Your task to perform on an android device: What's on the menu at Denny's? Image 0: 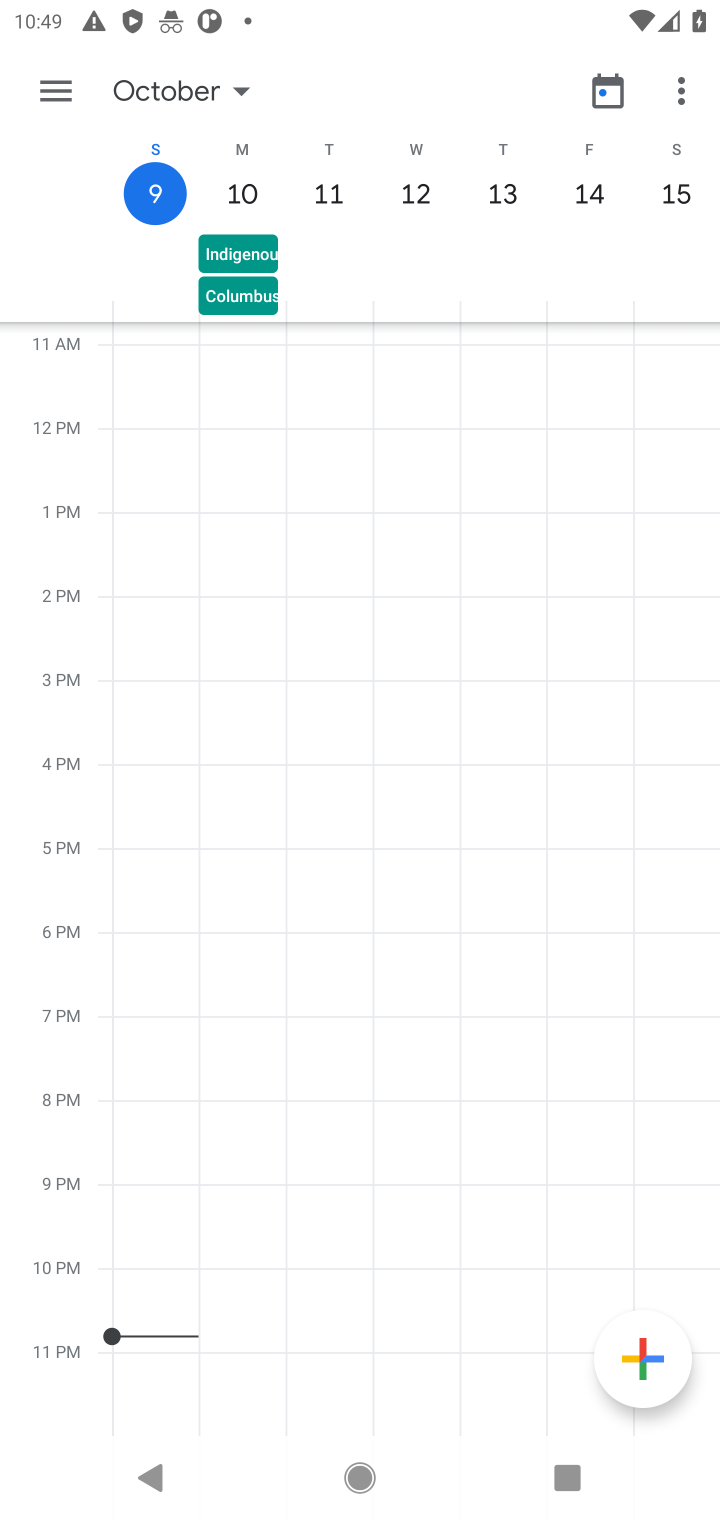
Step 0: press home button
Your task to perform on an android device: What's on the menu at Denny's? Image 1: 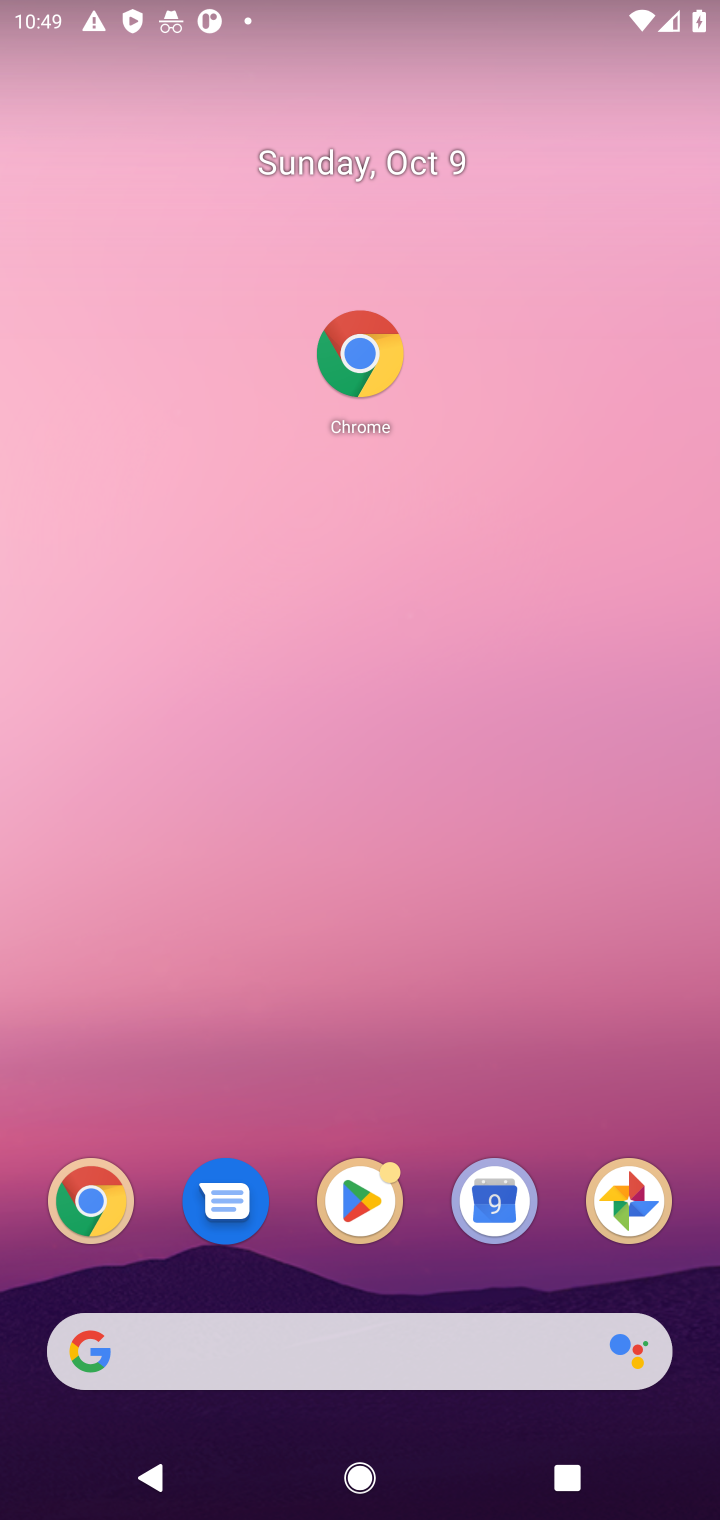
Step 1: click (96, 1204)
Your task to perform on an android device: What's on the menu at Denny's? Image 2: 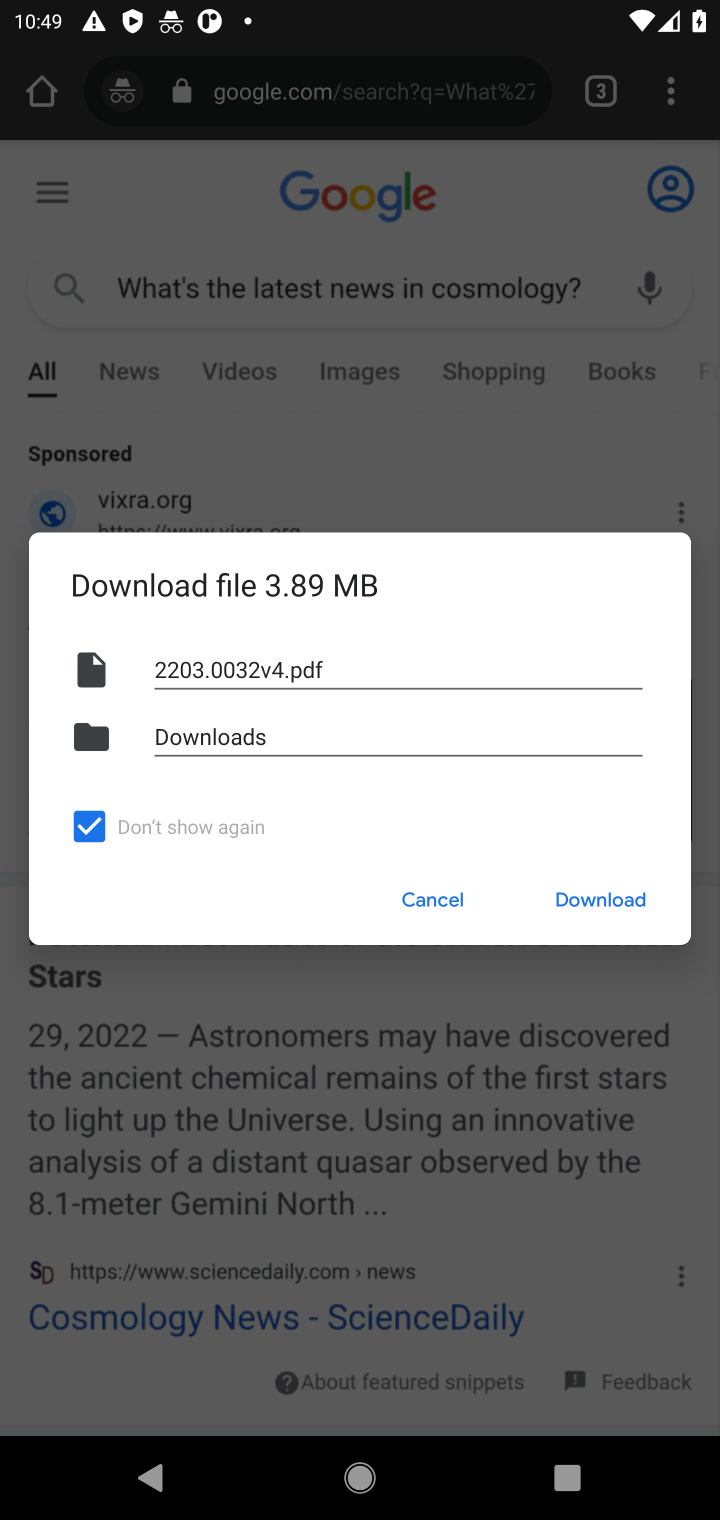
Step 2: click (438, 900)
Your task to perform on an android device: What's on the menu at Denny's? Image 3: 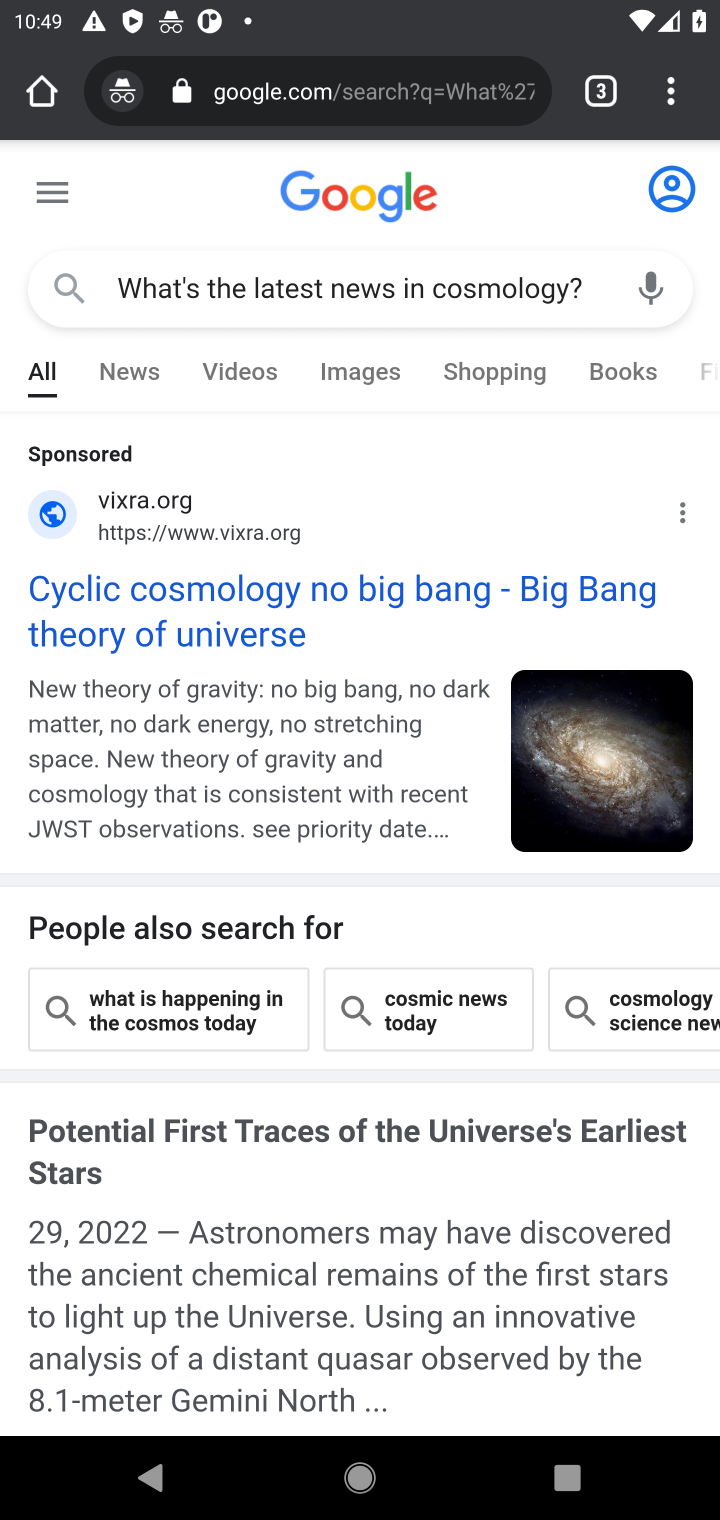
Step 3: click (310, 95)
Your task to perform on an android device: What's on the menu at Denny's? Image 4: 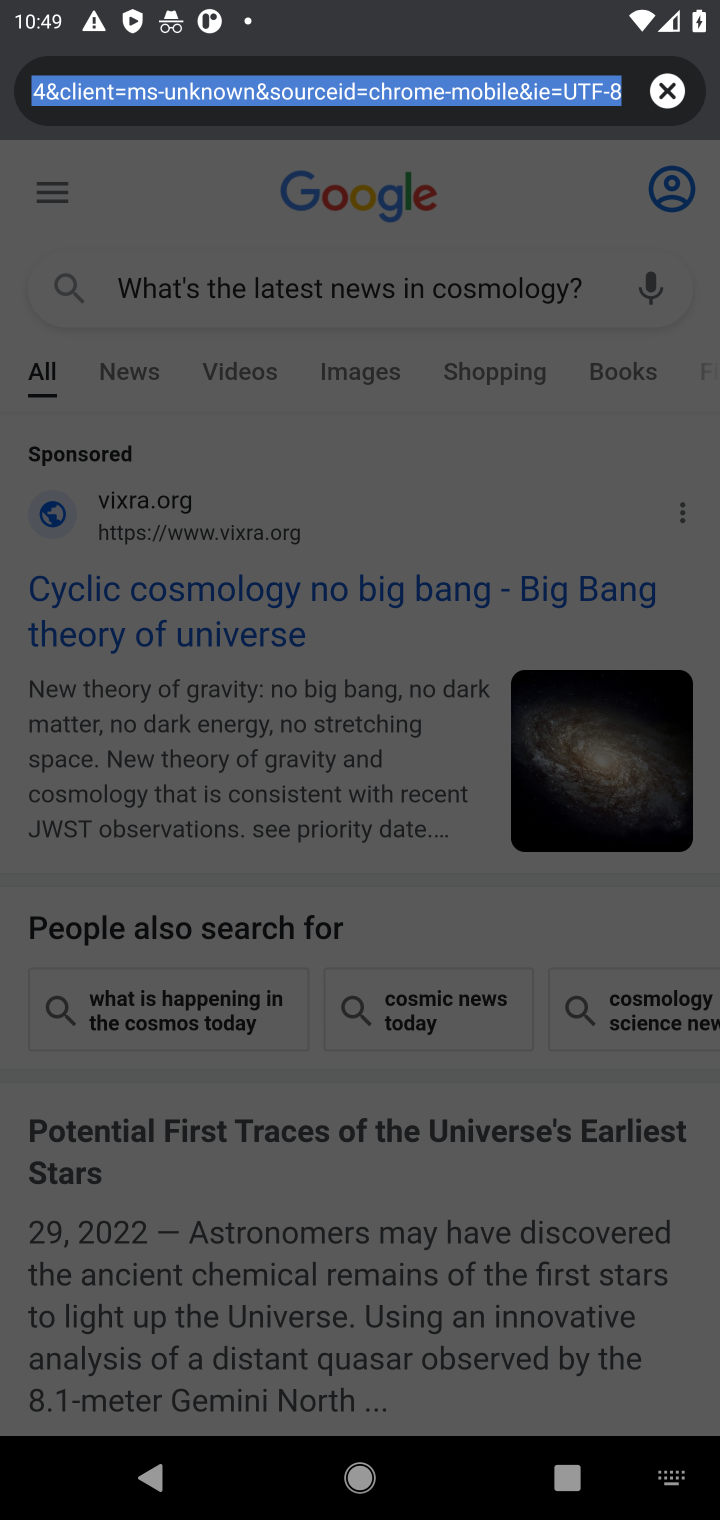
Step 4: type "What's on the menu at Denny's?"
Your task to perform on an android device: What's on the menu at Denny's? Image 5: 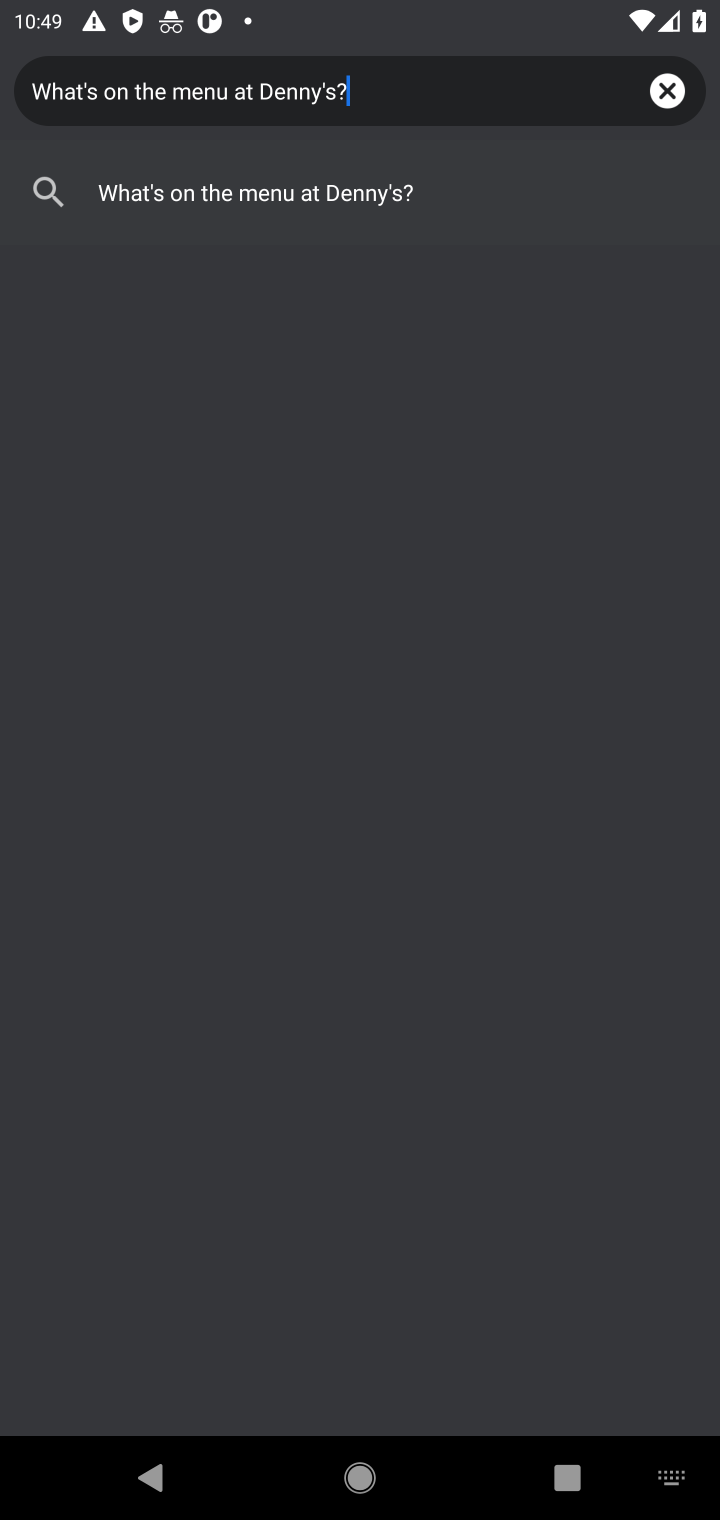
Step 5: click (415, 193)
Your task to perform on an android device: What's on the menu at Denny's? Image 6: 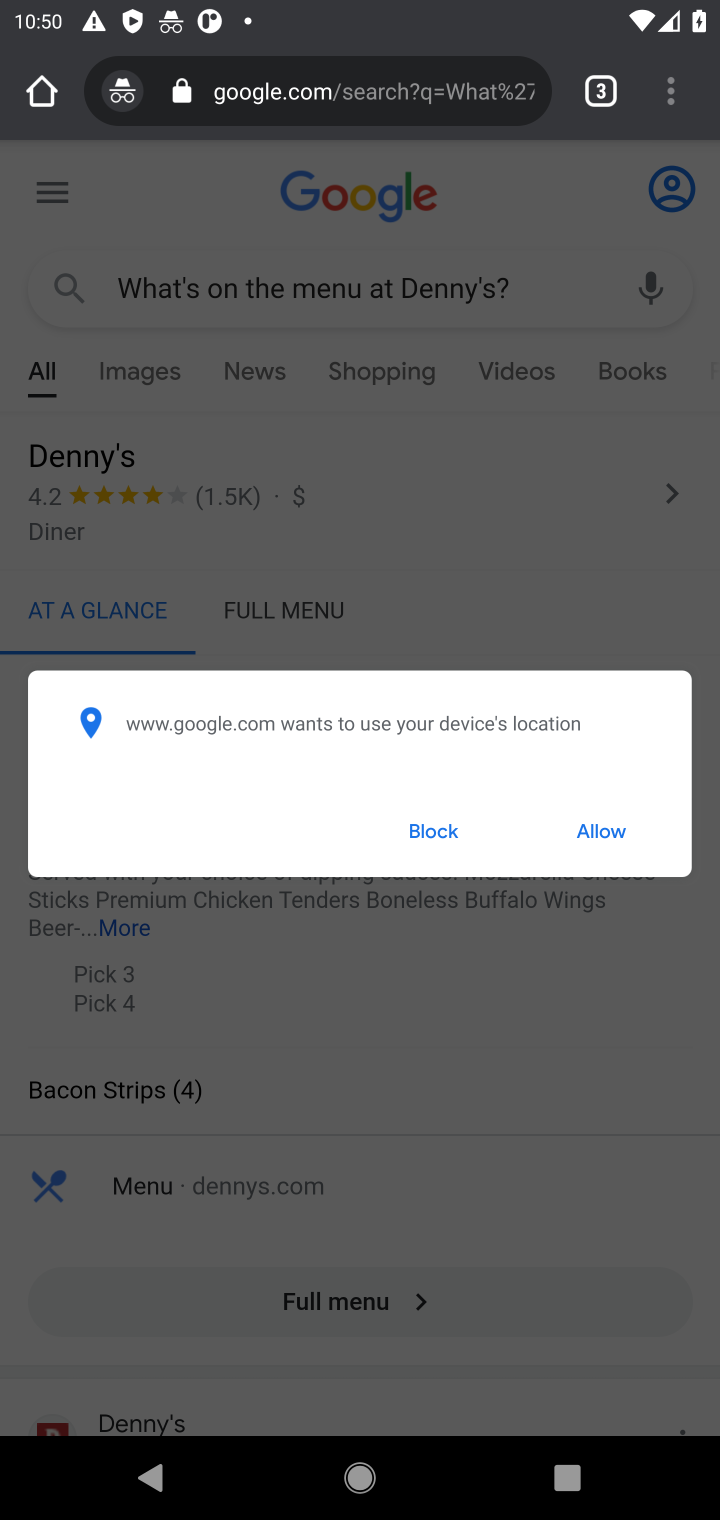
Step 6: click (581, 818)
Your task to perform on an android device: What's on the menu at Denny's? Image 7: 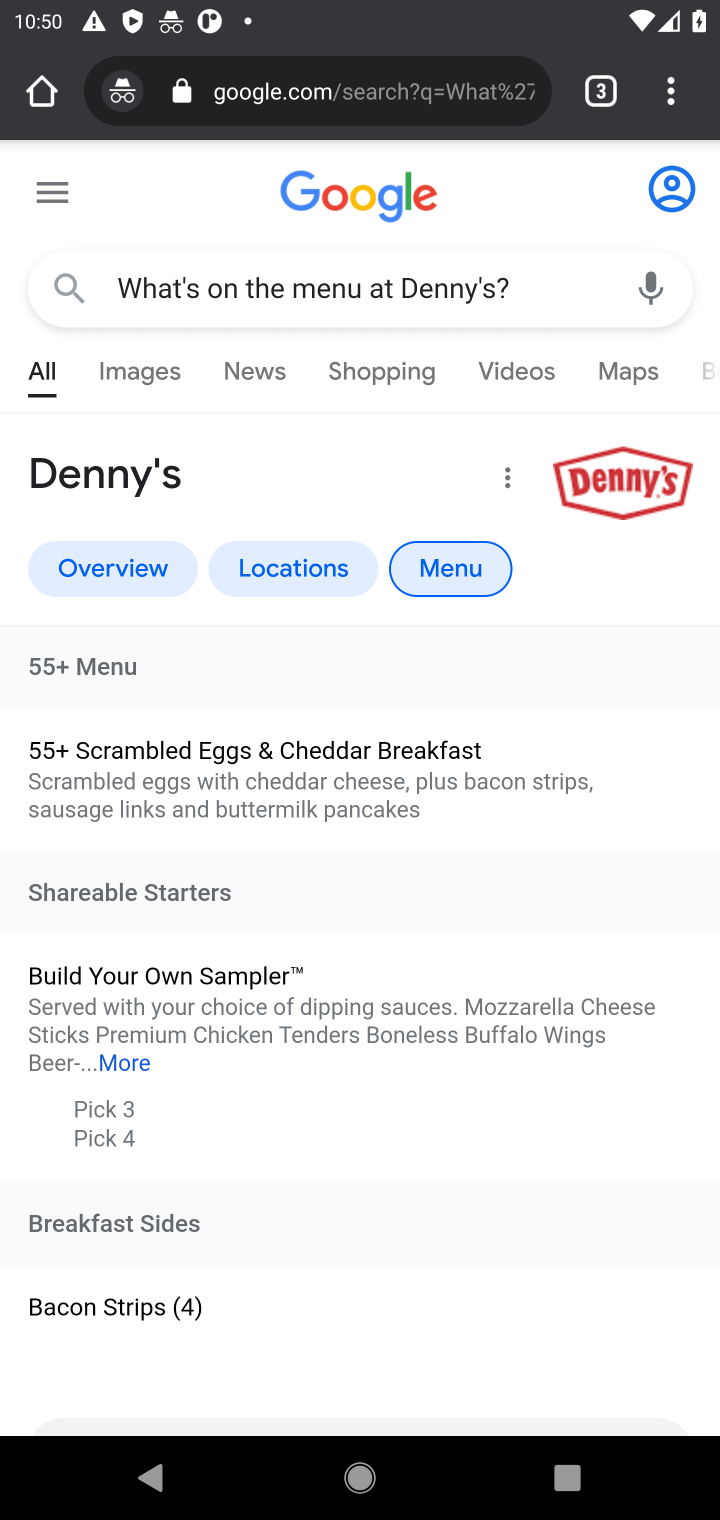
Step 7: task complete